Your task to perform on an android device: See recent photos Image 0: 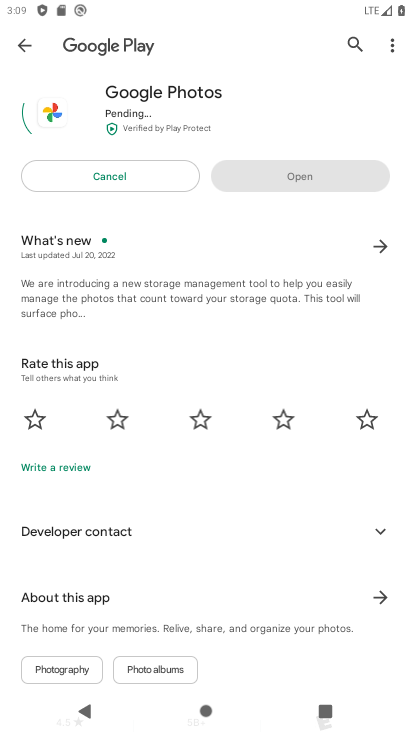
Step 0: press home button
Your task to perform on an android device: See recent photos Image 1: 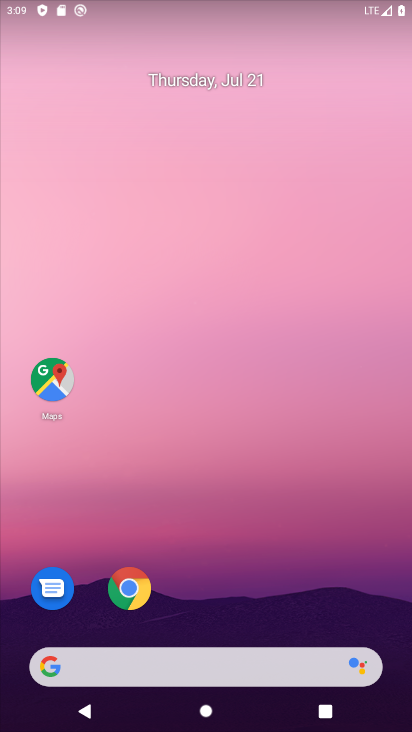
Step 1: drag from (306, 579) to (329, 2)
Your task to perform on an android device: See recent photos Image 2: 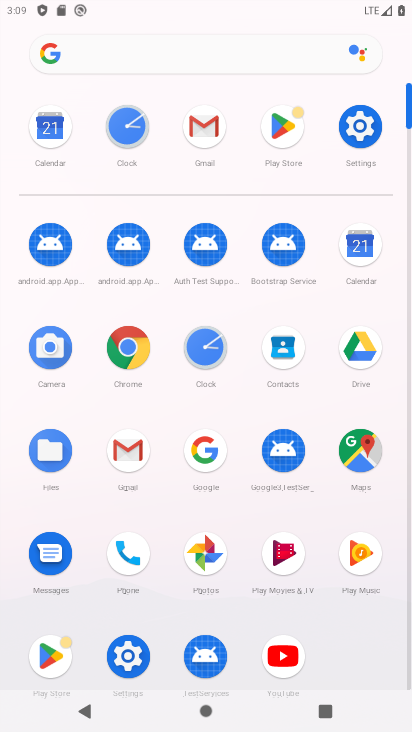
Step 2: click (202, 559)
Your task to perform on an android device: See recent photos Image 3: 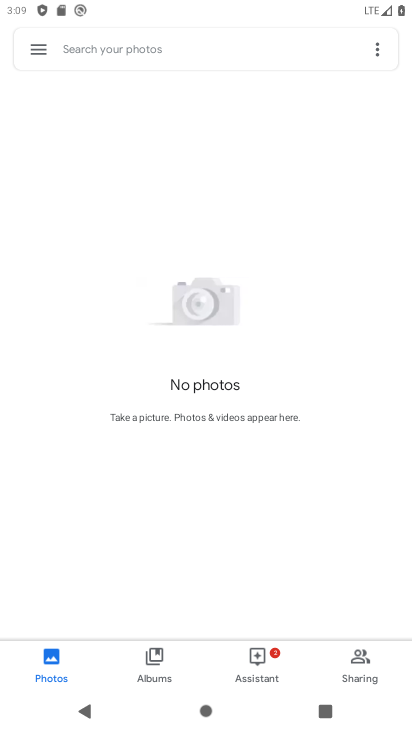
Step 3: task complete